Your task to perform on an android device: check android version Image 0: 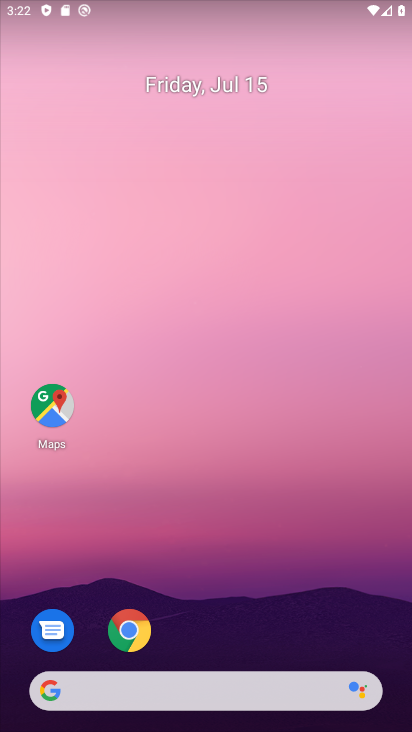
Step 0: drag from (217, 649) to (206, 166)
Your task to perform on an android device: check android version Image 1: 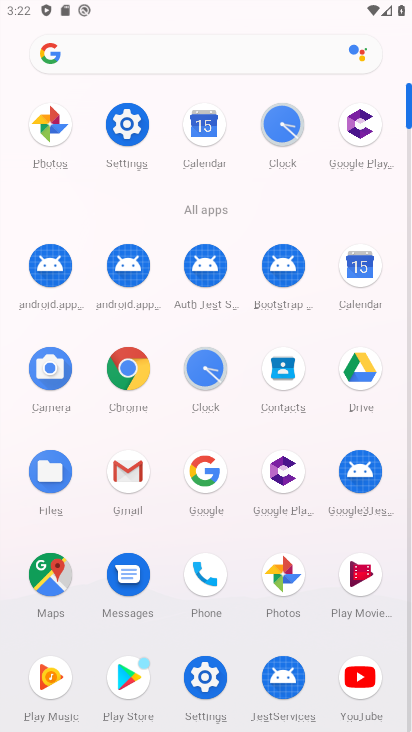
Step 1: click (197, 661)
Your task to perform on an android device: check android version Image 2: 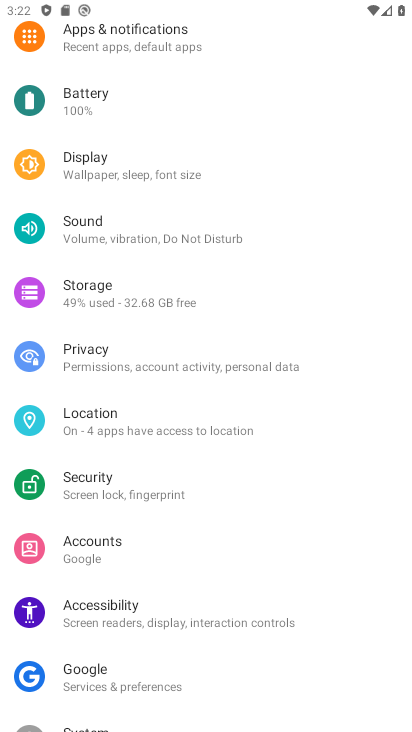
Step 2: drag from (133, 646) to (135, 219)
Your task to perform on an android device: check android version Image 3: 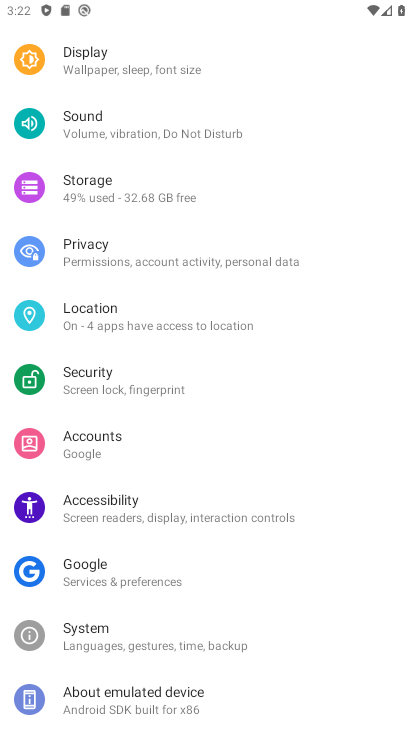
Step 3: click (193, 704)
Your task to perform on an android device: check android version Image 4: 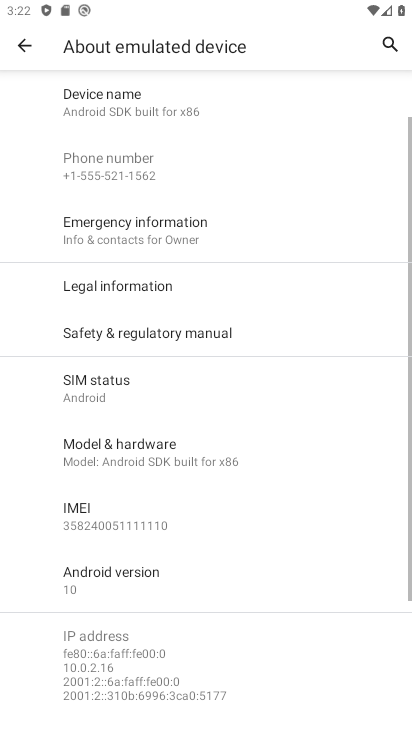
Step 4: click (134, 584)
Your task to perform on an android device: check android version Image 5: 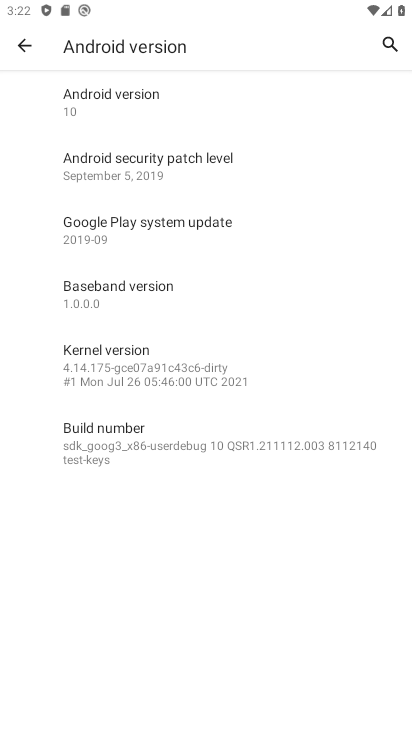
Step 5: task complete